Your task to perform on an android device: Go to wifi settings Image 0: 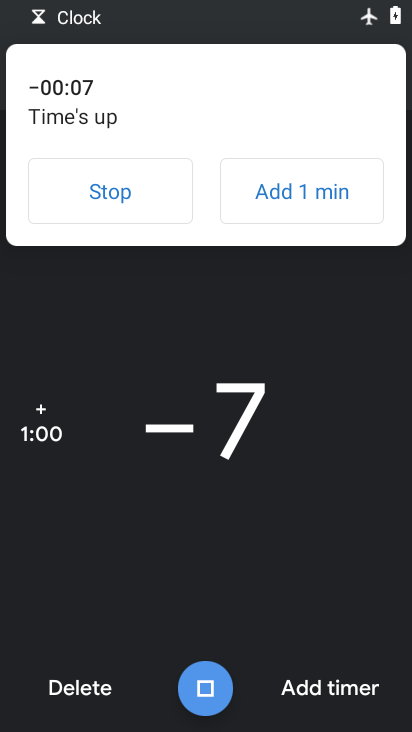
Step 0: press home button
Your task to perform on an android device: Go to wifi settings Image 1: 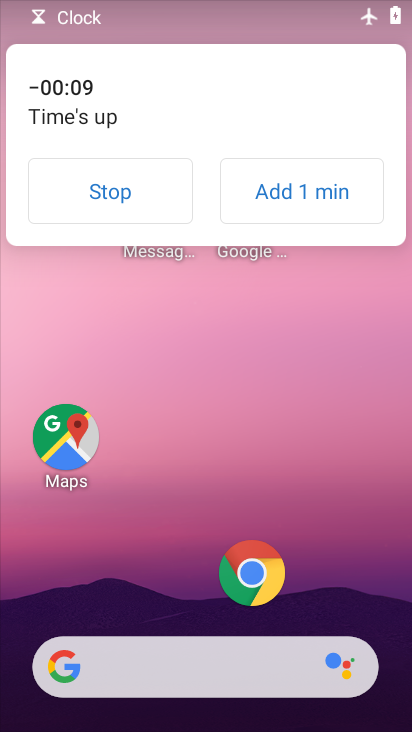
Step 1: click (109, 207)
Your task to perform on an android device: Go to wifi settings Image 2: 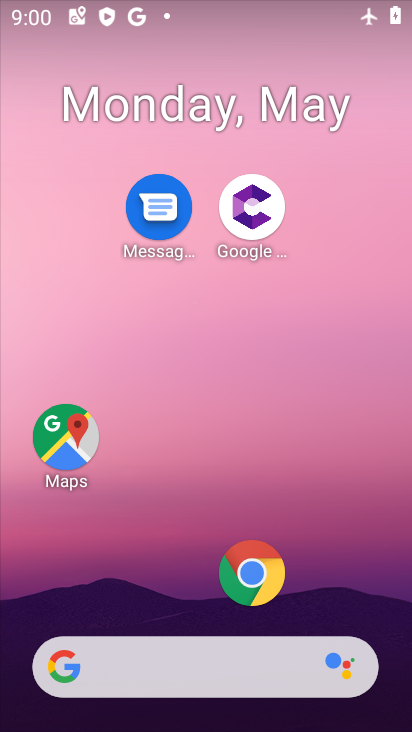
Step 2: drag from (228, 591) to (308, 92)
Your task to perform on an android device: Go to wifi settings Image 3: 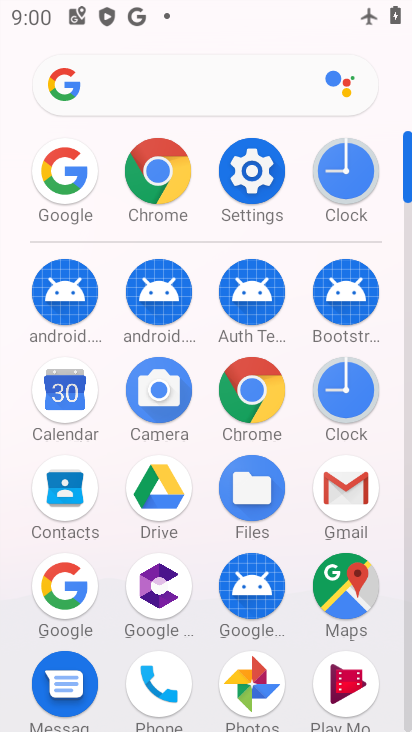
Step 3: click (247, 202)
Your task to perform on an android device: Go to wifi settings Image 4: 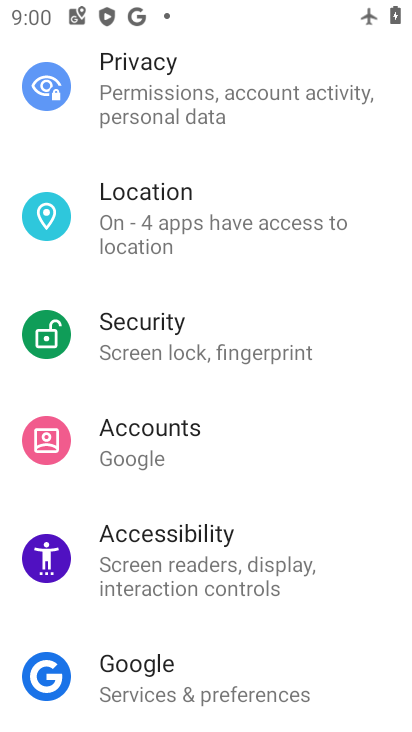
Step 4: drag from (229, 247) to (181, 537)
Your task to perform on an android device: Go to wifi settings Image 5: 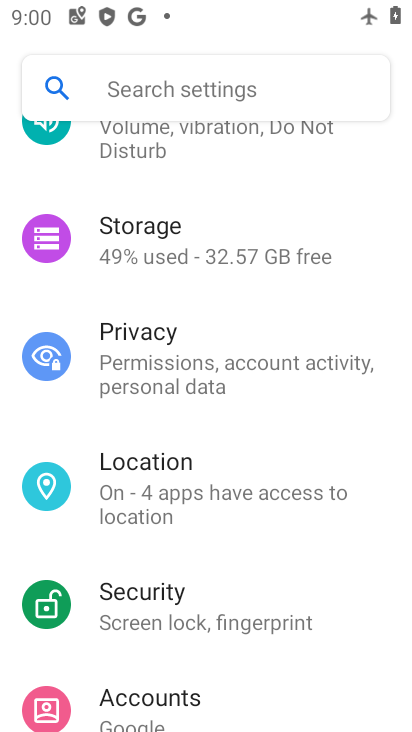
Step 5: drag from (184, 344) to (171, 587)
Your task to perform on an android device: Go to wifi settings Image 6: 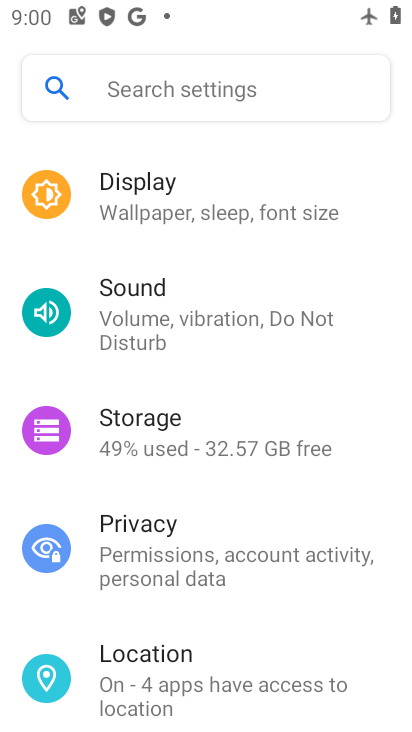
Step 6: drag from (236, 334) to (211, 585)
Your task to perform on an android device: Go to wifi settings Image 7: 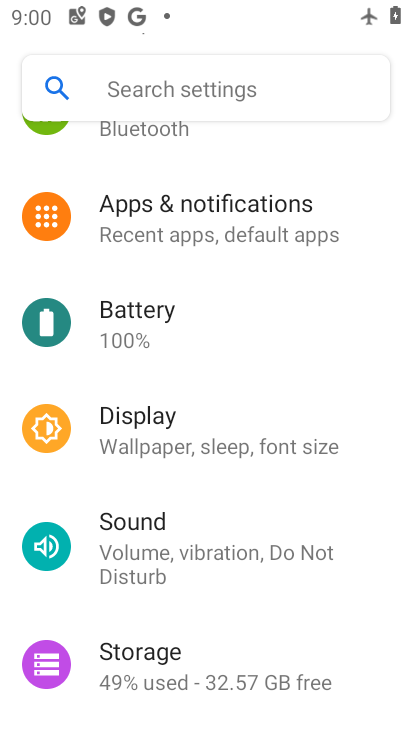
Step 7: drag from (249, 195) to (204, 569)
Your task to perform on an android device: Go to wifi settings Image 8: 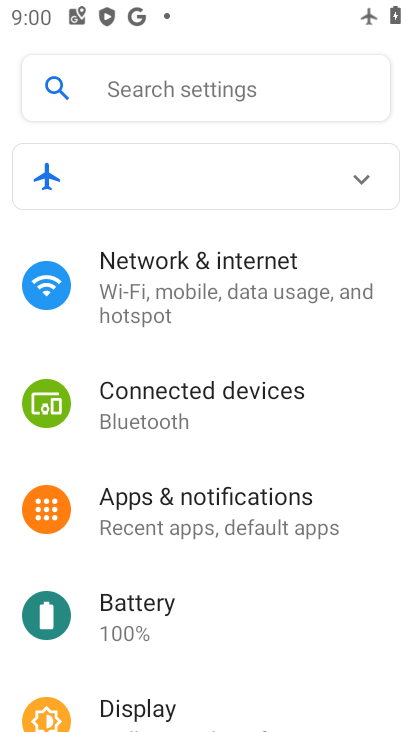
Step 8: click (207, 277)
Your task to perform on an android device: Go to wifi settings Image 9: 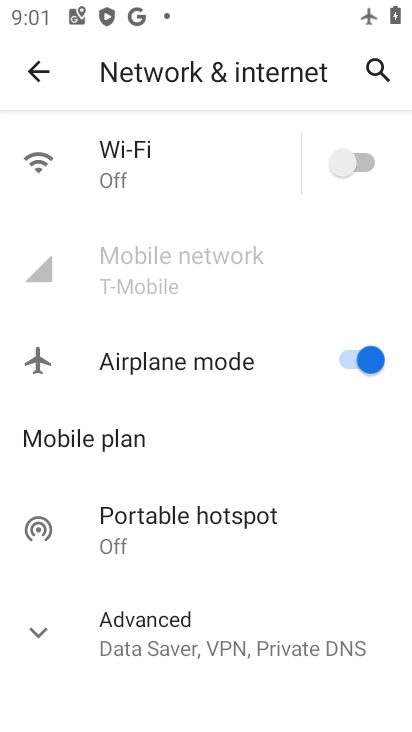
Step 9: click (162, 143)
Your task to perform on an android device: Go to wifi settings Image 10: 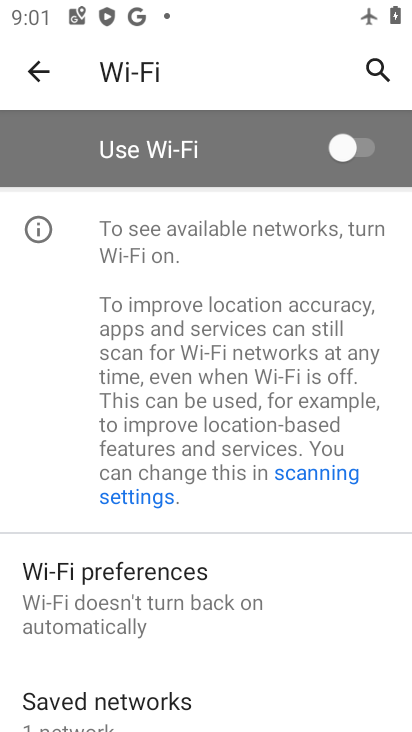
Step 10: task complete